Your task to perform on an android device: open chrome and create a bookmark for the current page Image 0: 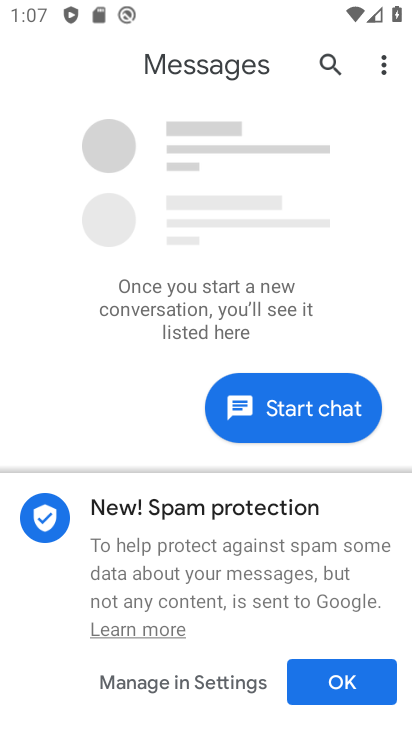
Step 0: press back button
Your task to perform on an android device: open chrome and create a bookmark for the current page Image 1: 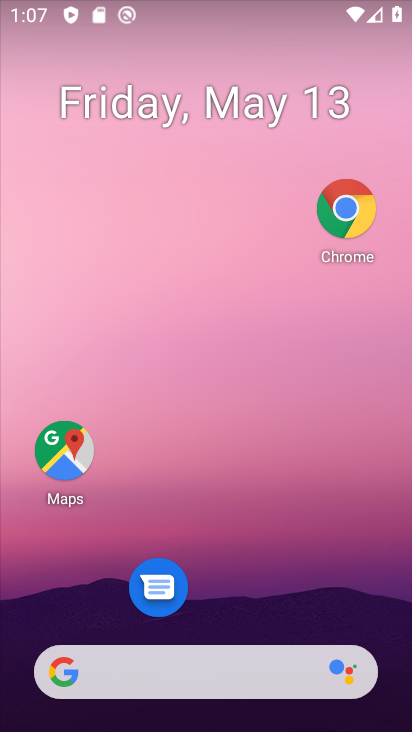
Step 1: click (348, 213)
Your task to perform on an android device: open chrome and create a bookmark for the current page Image 2: 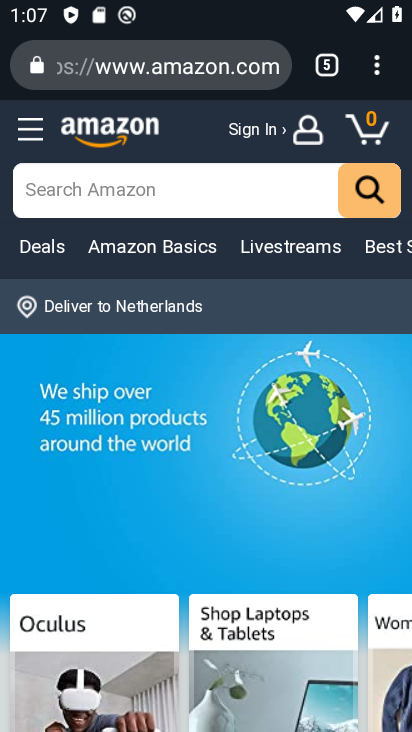
Step 2: task complete